Your task to perform on an android device: Go to Maps Image 0: 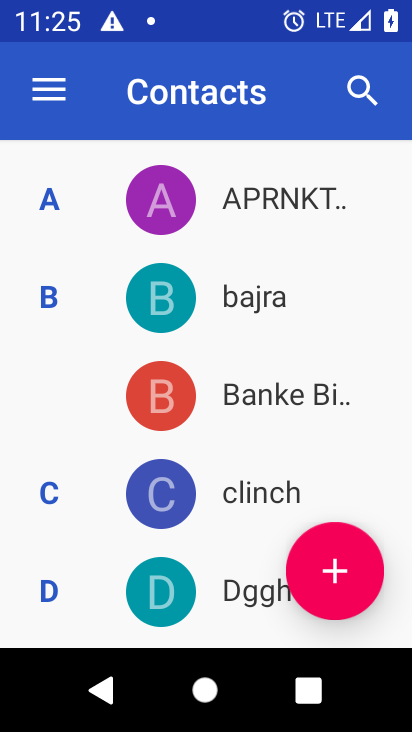
Step 0: press home button
Your task to perform on an android device: Go to Maps Image 1: 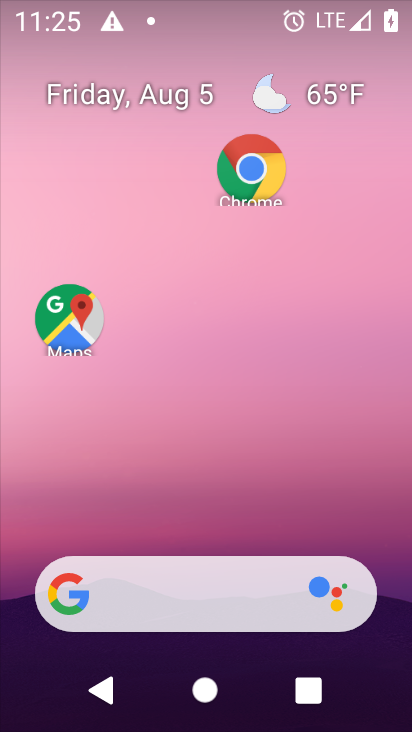
Step 1: click (85, 329)
Your task to perform on an android device: Go to Maps Image 2: 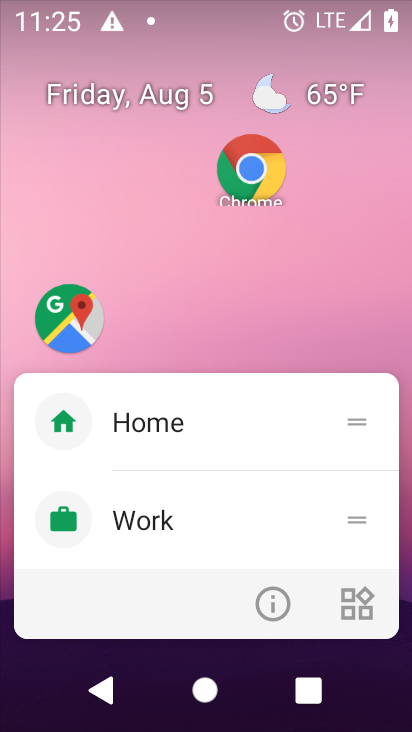
Step 2: click (83, 317)
Your task to perform on an android device: Go to Maps Image 3: 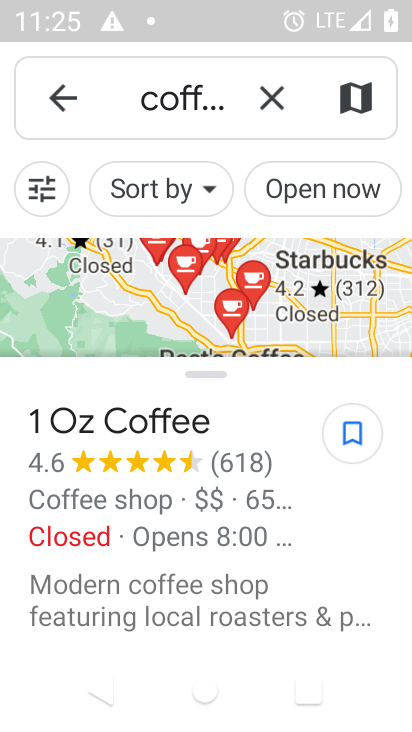
Step 3: task complete